Your task to perform on an android device: Go to privacy settings Image 0: 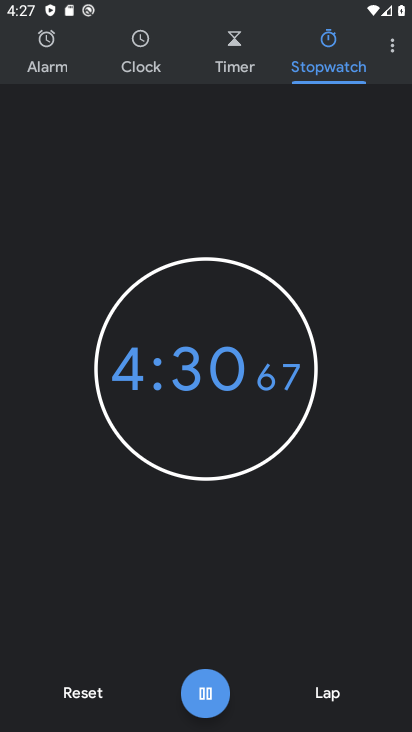
Step 0: press home button
Your task to perform on an android device: Go to privacy settings Image 1: 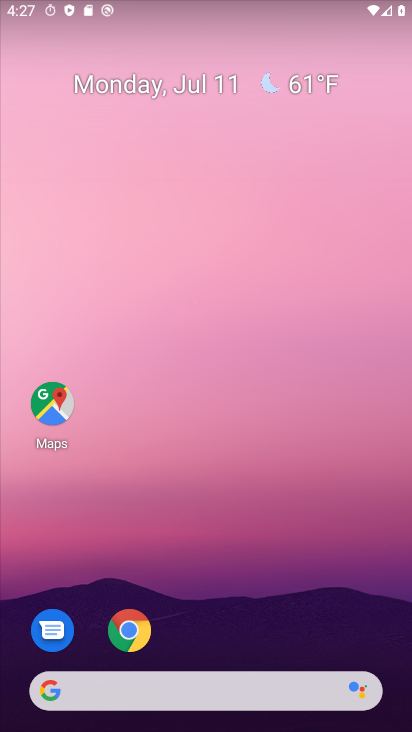
Step 1: drag from (321, 642) to (412, 16)
Your task to perform on an android device: Go to privacy settings Image 2: 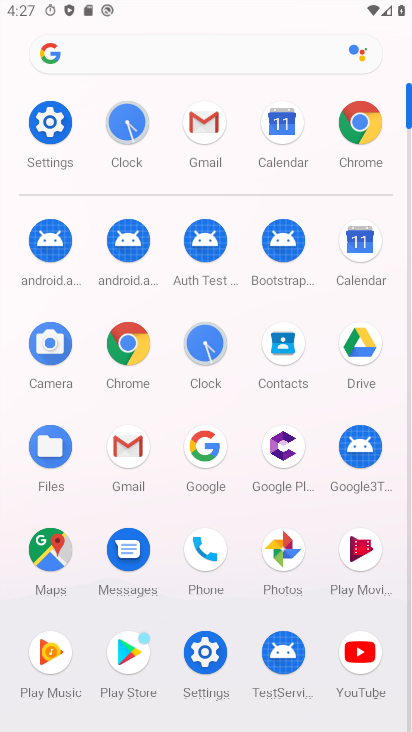
Step 2: click (45, 117)
Your task to perform on an android device: Go to privacy settings Image 3: 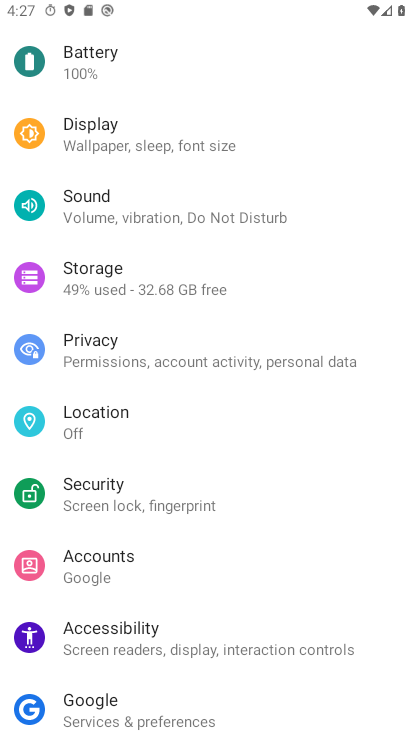
Step 3: click (133, 361)
Your task to perform on an android device: Go to privacy settings Image 4: 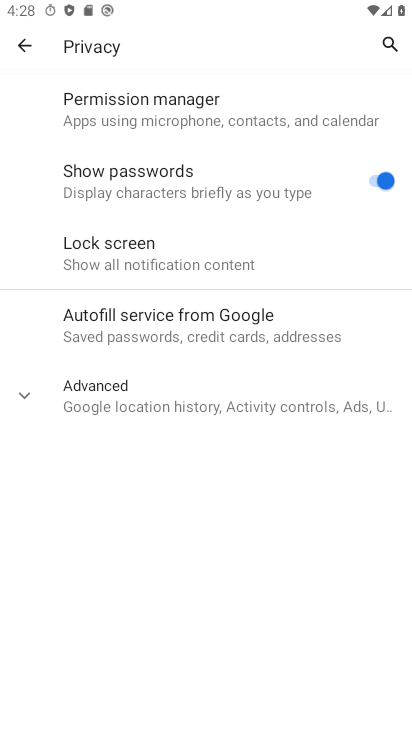
Step 4: task complete